Your task to perform on an android device: stop showing notifications on the lock screen Image 0: 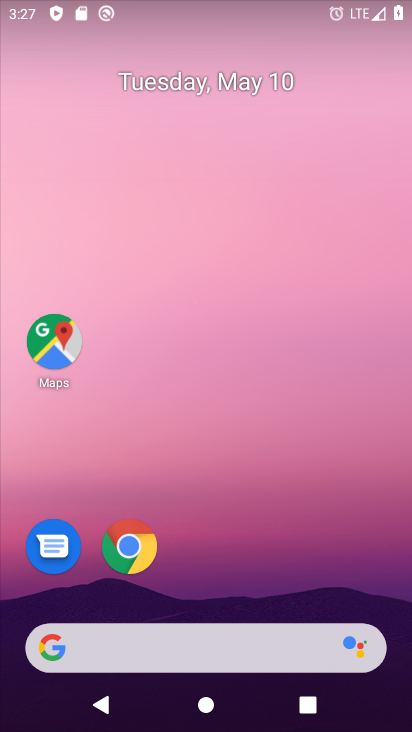
Step 0: drag from (205, 600) to (239, 69)
Your task to perform on an android device: stop showing notifications on the lock screen Image 1: 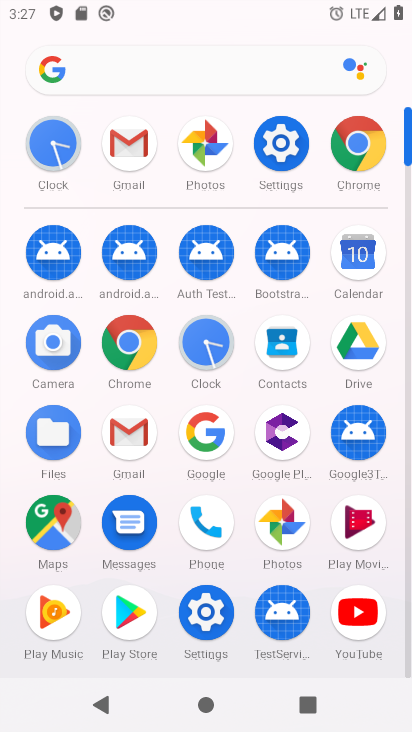
Step 1: click (225, 629)
Your task to perform on an android device: stop showing notifications on the lock screen Image 2: 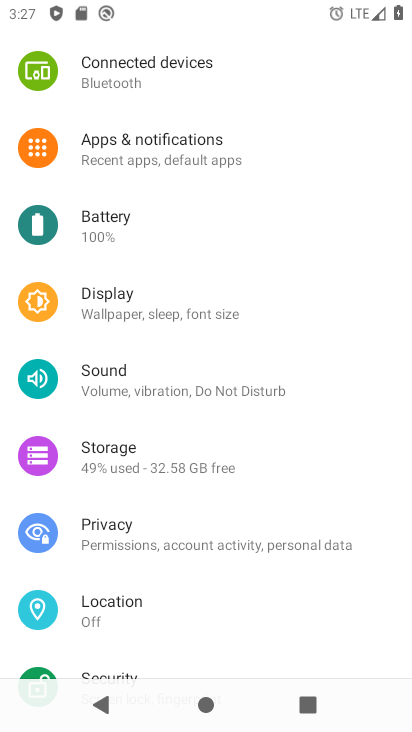
Step 2: click (157, 161)
Your task to perform on an android device: stop showing notifications on the lock screen Image 3: 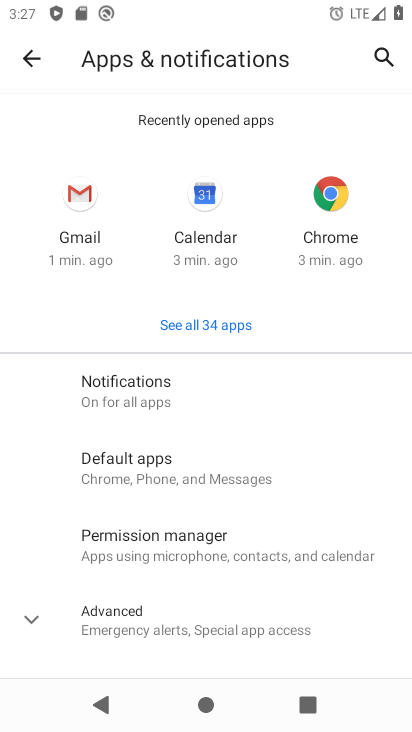
Step 3: click (149, 398)
Your task to perform on an android device: stop showing notifications on the lock screen Image 4: 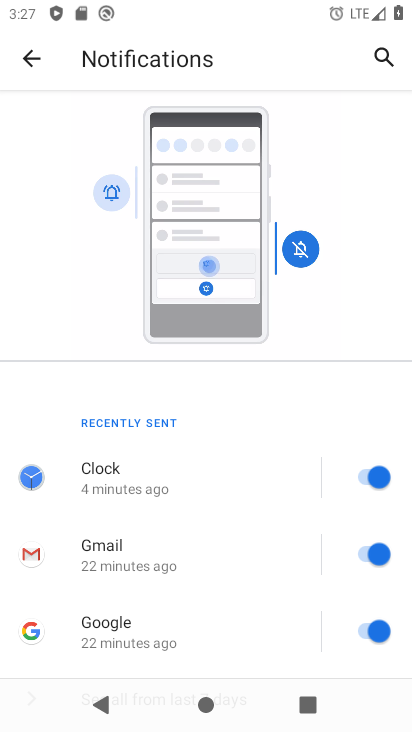
Step 4: drag from (209, 558) to (301, 210)
Your task to perform on an android device: stop showing notifications on the lock screen Image 5: 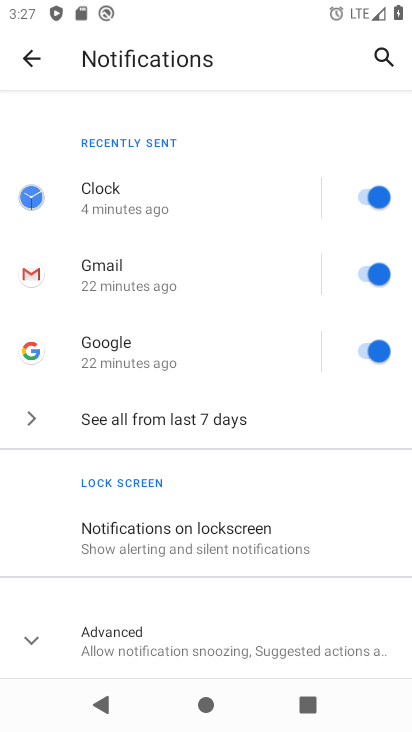
Step 5: click (247, 548)
Your task to perform on an android device: stop showing notifications on the lock screen Image 6: 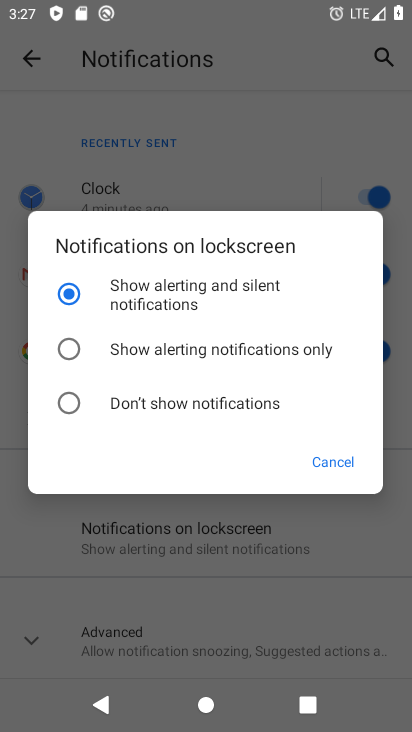
Step 6: click (88, 399)
Your task to perform on an android device: stop showing notifications on the lock screen Image 7: 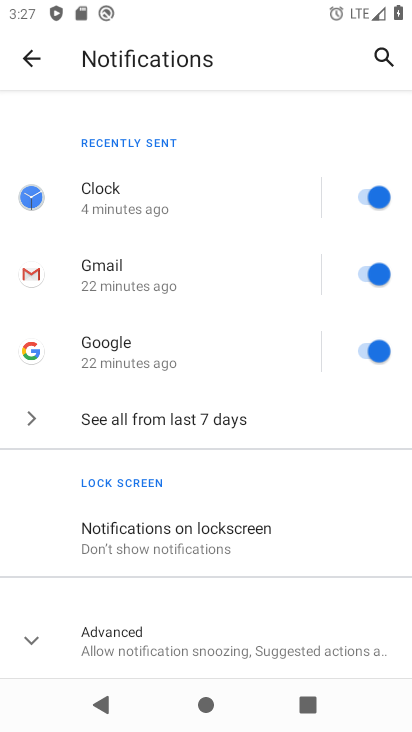
Step 7: task complete